Your task to perform on an android device: Go to notification settings Image 0: 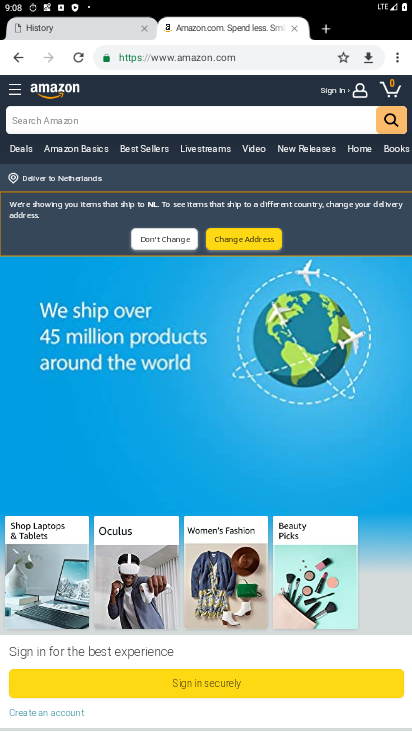
Step 0: press home button
Your task to perform on an android device: Go to notification settings Image 1: 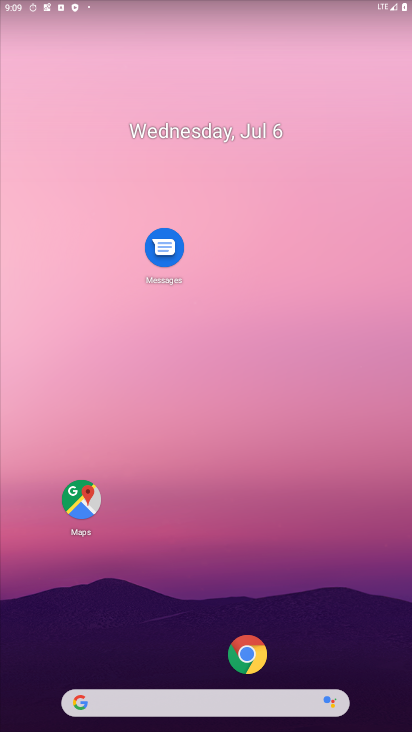
Step 1: drag from (212, 11) to (170, 445)
Your task to perform on an android device: Go to notification settings Image 2: 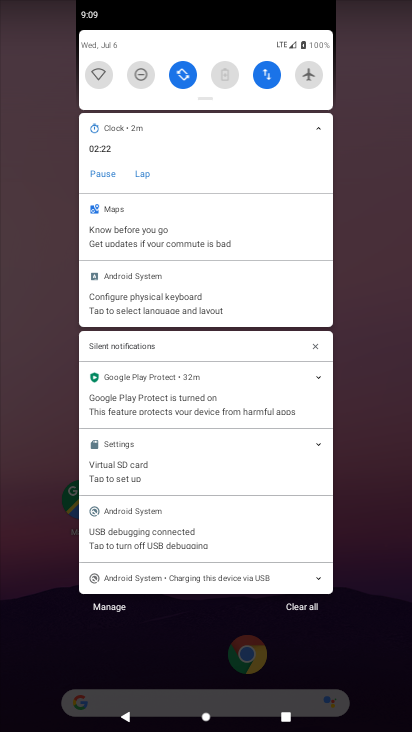
Step 2: drag from (212, 48) to (131, 727)
Your task to perform on an android device: Go to notification settings Image 3: 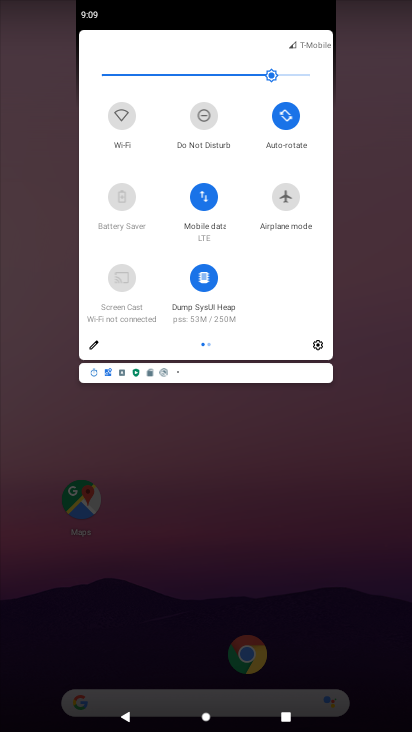
Step 3: click (317, 341)
Your task to perform on an android device: Go to notification settings Image 4: 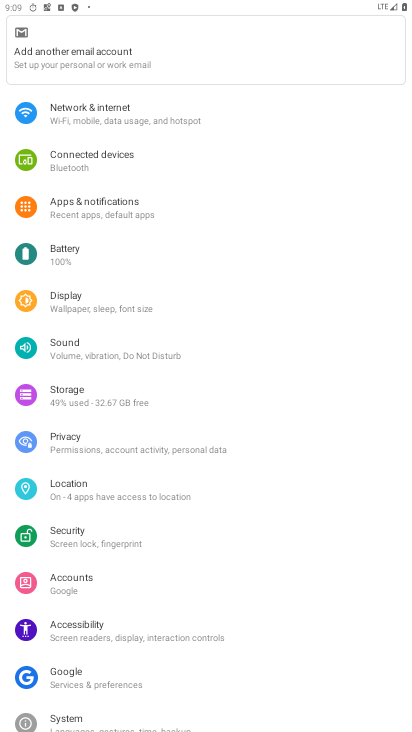
Step 4: click (160, 214)
Your task to perform on an android device: Go to notification settings Image 5: 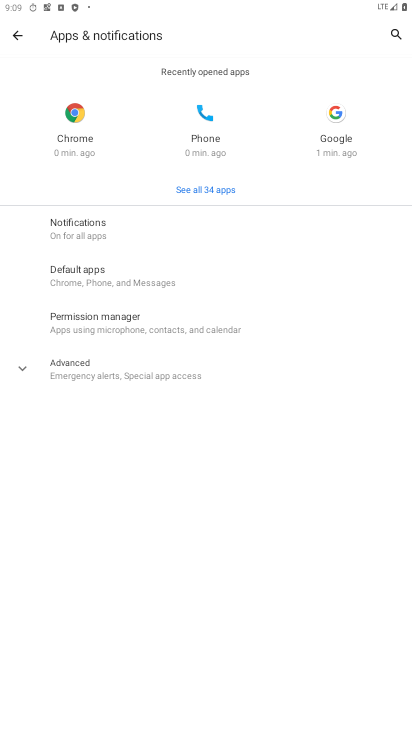
Step 5: task complete